Your task to perform on an android device: See recent photos Image 0: 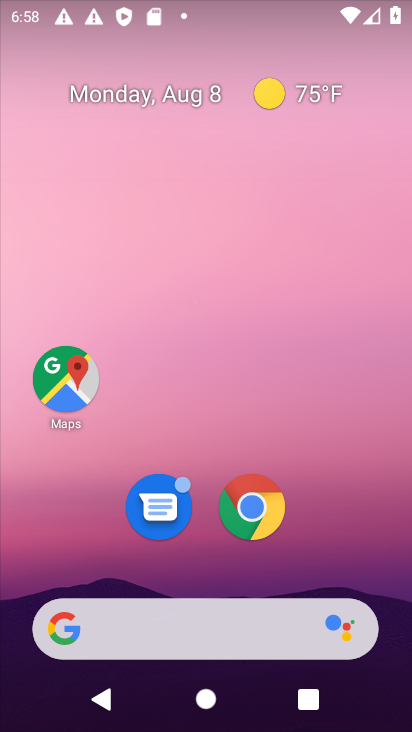
Step 0: drag from (272, 661) to (273, 76)
Your task to perform on an android device: See recent photos Image 1: 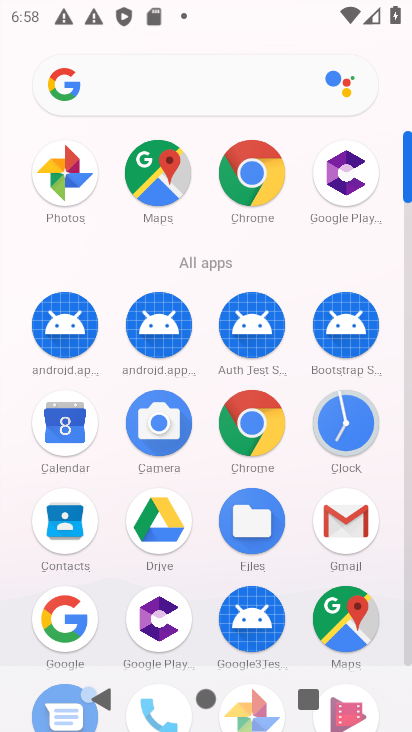
Step 1: drag from (200, 488) to (194, 417)
Your task to perform on an android device: See recent photos Image 2: 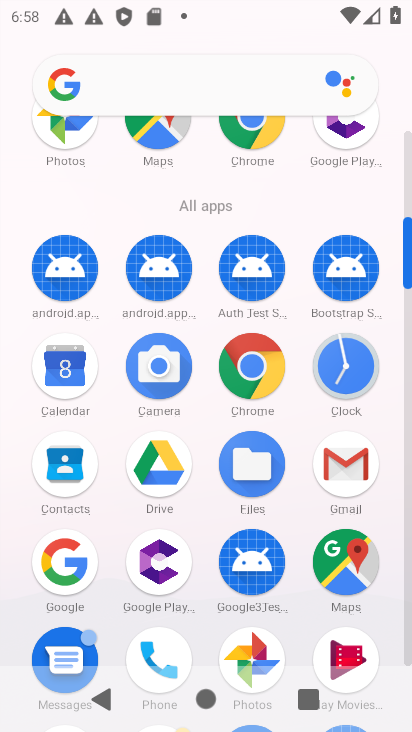
Step 2: click (250, 653)
Your task to perform on an android device: See recent photos Image 3: 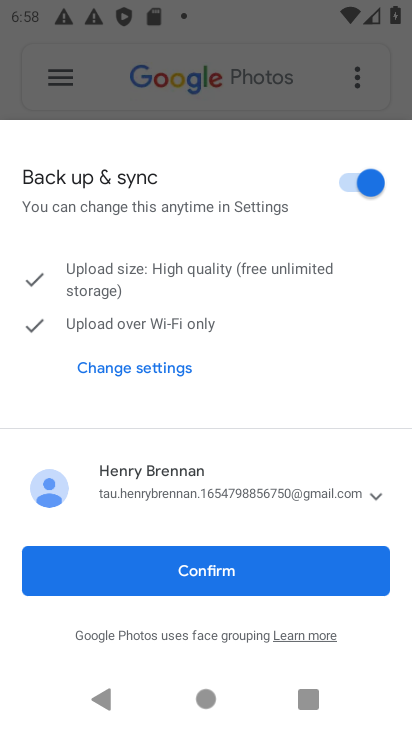
Step 3: click (232, 583)
Your task to perform on an android device: See recent photos Image 4: 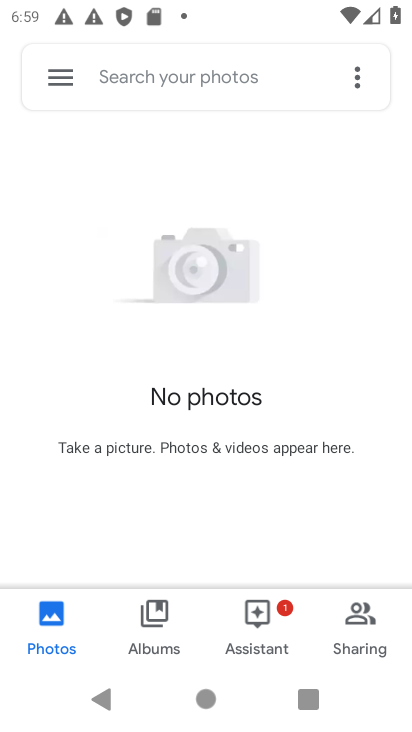
Step 4: task complete